Your task to perform on an android device: visit the assistant section in the google photos Image 0: 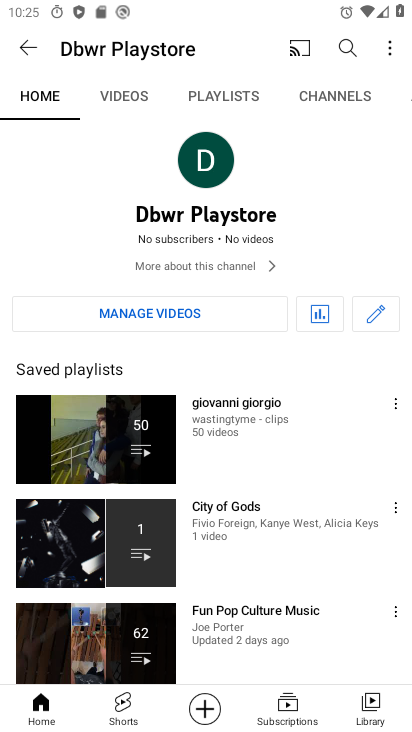
Step 0: press home button
Your task to perform on an android device: visit the assistant section in the google photos Image 1: 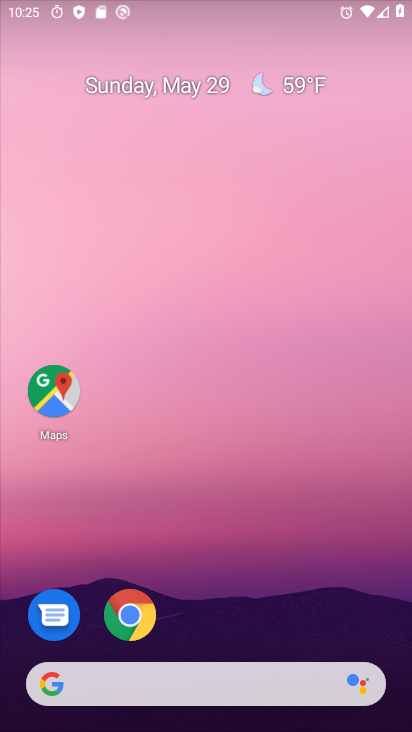
Step 1: drag from (191, 594) to (223, 43)
Your task to perform on an android device: visit the assistant section in the google photos Image 2: 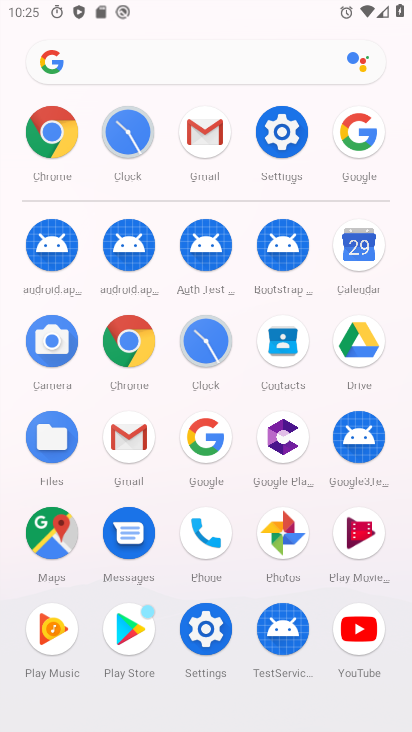
Step 2: click (285, 533)
Your task to perform on an android device: visit the assistant section in the google photos Image 3: 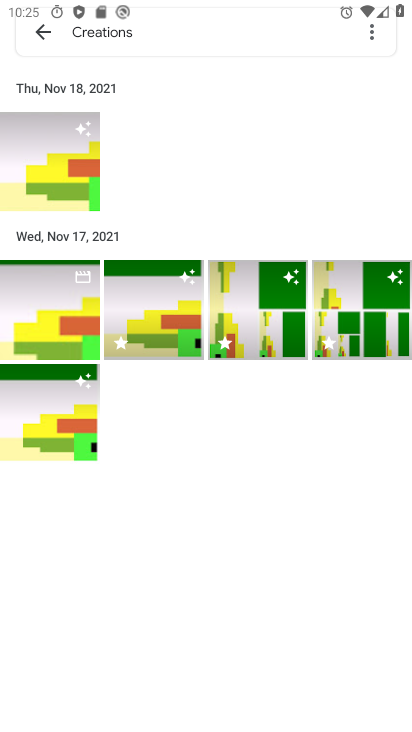
Step 3: press back button
Your task to perform on an android device: visit the assistant section in the google photos Image 4: 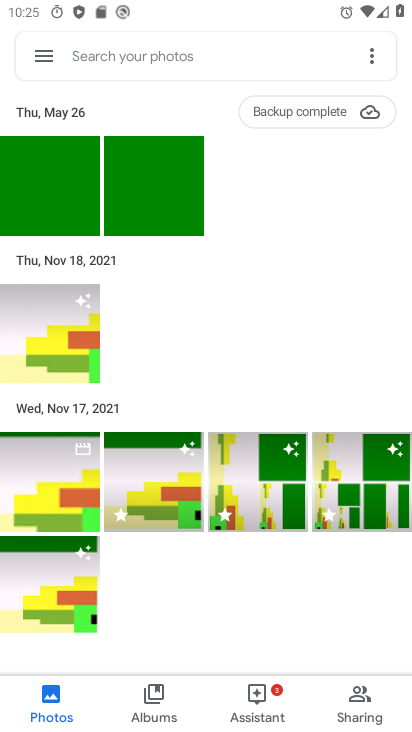
Step 4: click (248, 700)
Your task to perform on an android device: visit the assistant section in the google photos Image 5: 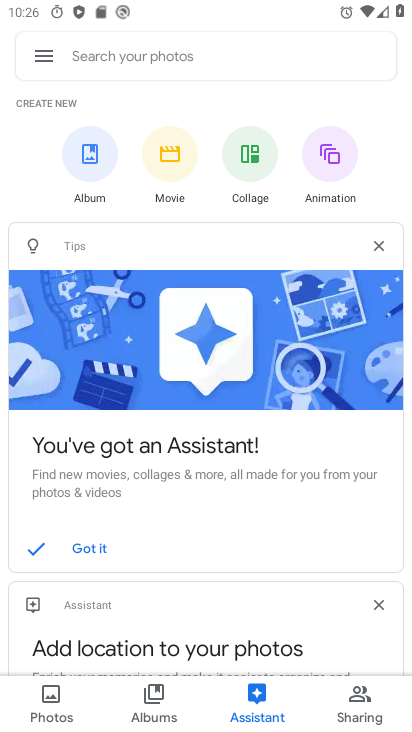
Step 5: task complete